Your task to perform on an android device: Open privacy settings Image 0: 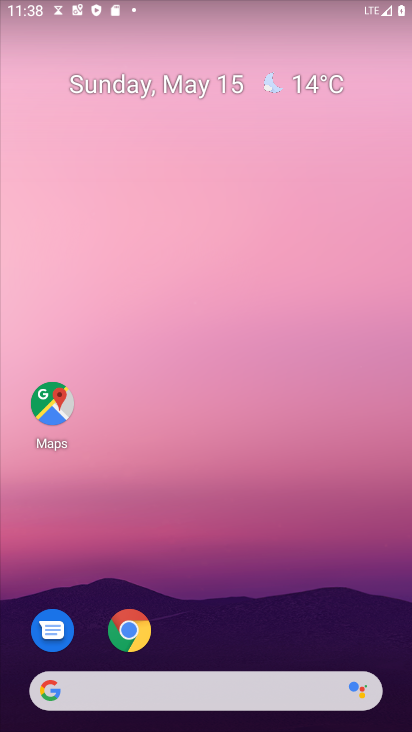
Step 0: drag from (48, 618) to (337, 188)
Your task to perform on an android device: Open privacy settings Image 1: 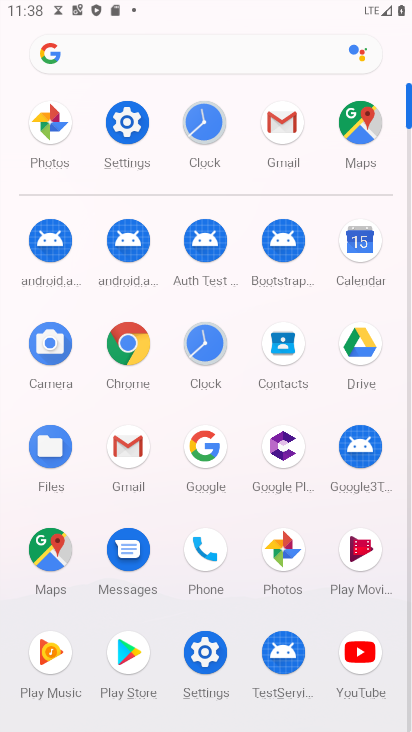
Step 1: click (124, 125)
Your task to perform on an android device: Open privacy settings Image 2: 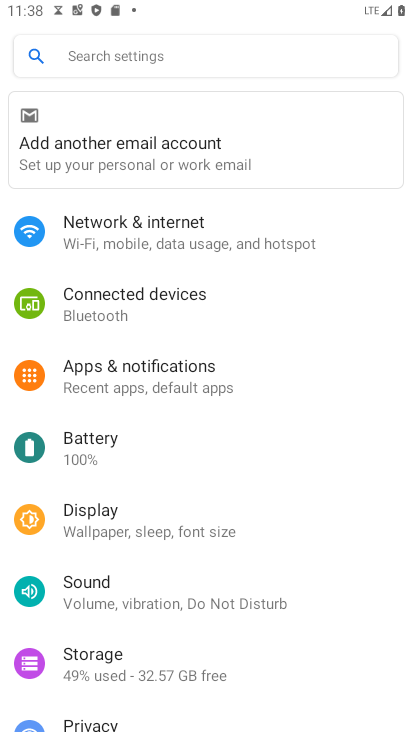
Step 2: click (64, 717)
Your task to perform on an android device: Open privacy settings Image 3: 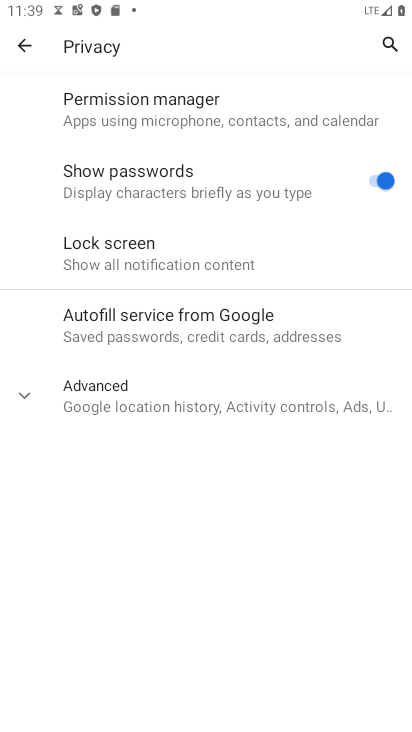
Step 3: press home button
Your task to perform on an android device: Open privacy settings Image 4: 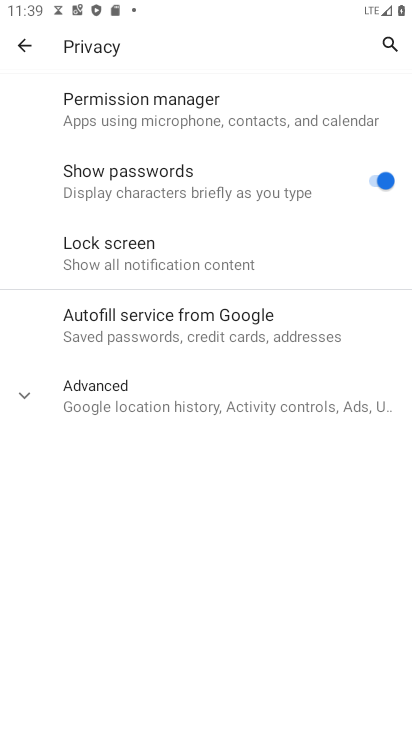
Step 4: press home button
Your task to perform on an android device: Open privacy settings Image 5: 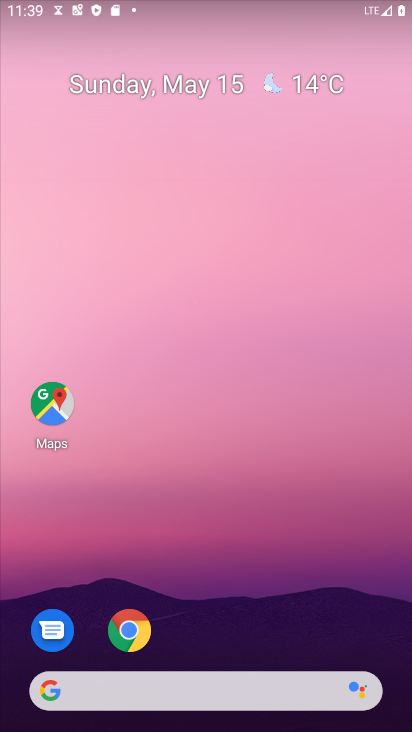
Step 5: drag from (100, 624) to (383, 44)
Your task to perform on an android device: Open privacy settings Image 6: 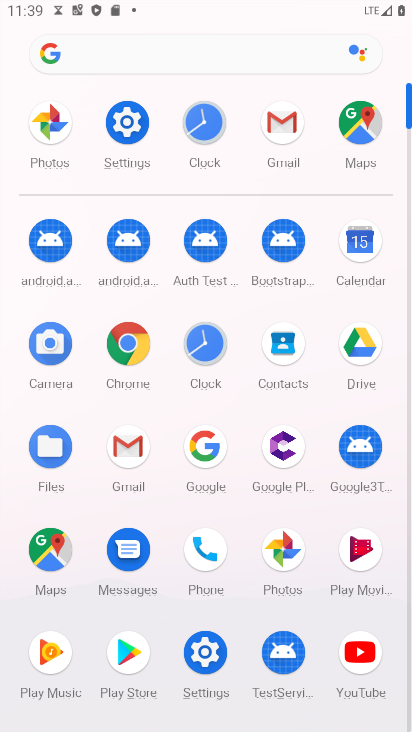
Step 6: click (134, 121)
Your task to perform on an android device: Open privacy settings Image 7: 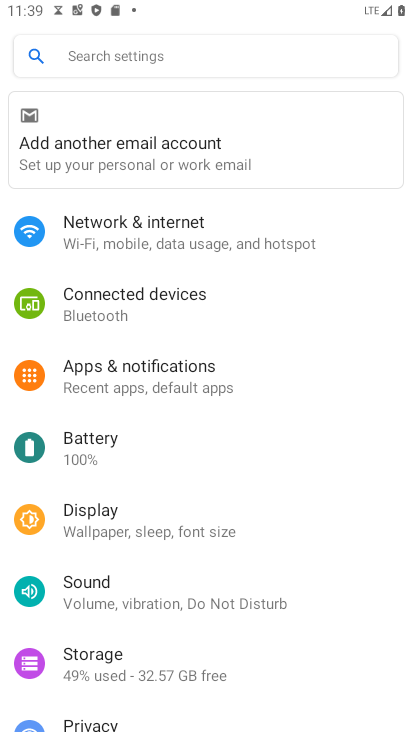
Step 7: click (182, 647)
Your task to perform on an android device: Open privacy settings Image 8: 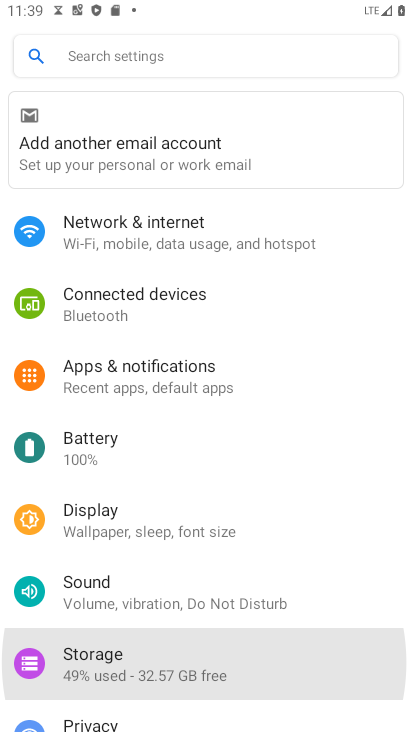
Step 8: click (122, 719)
Your task to perform on an android device: Open privacy settings Image 9: 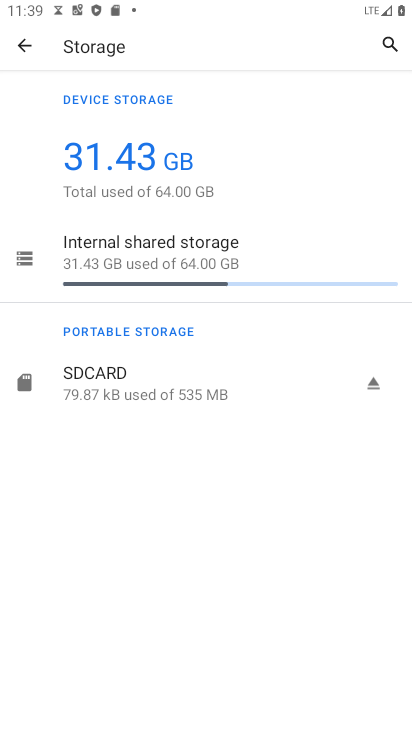
Step 9: task complete